Your task to perform on an android device: change the clock style Image 0: 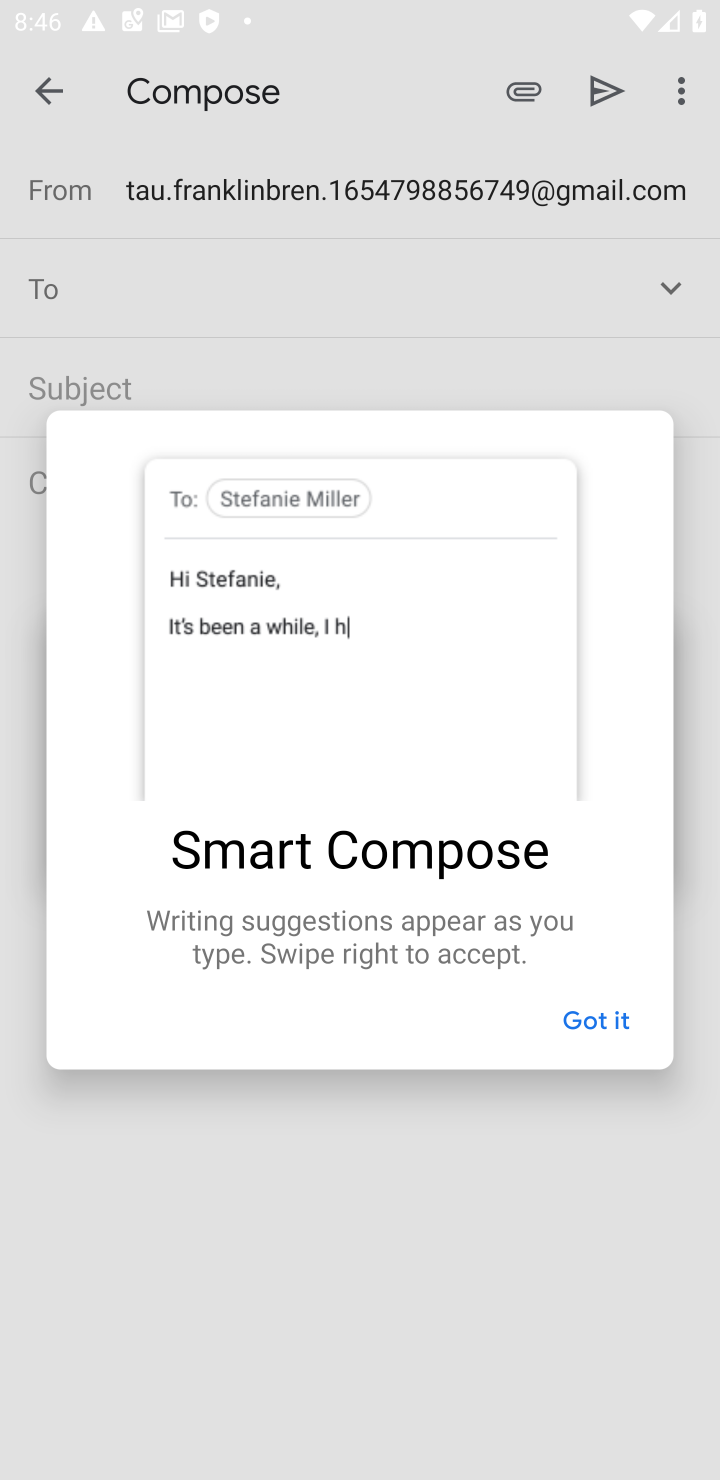
Step 0: press home button
Your task to perform on an android device: change the clock style Image 1: 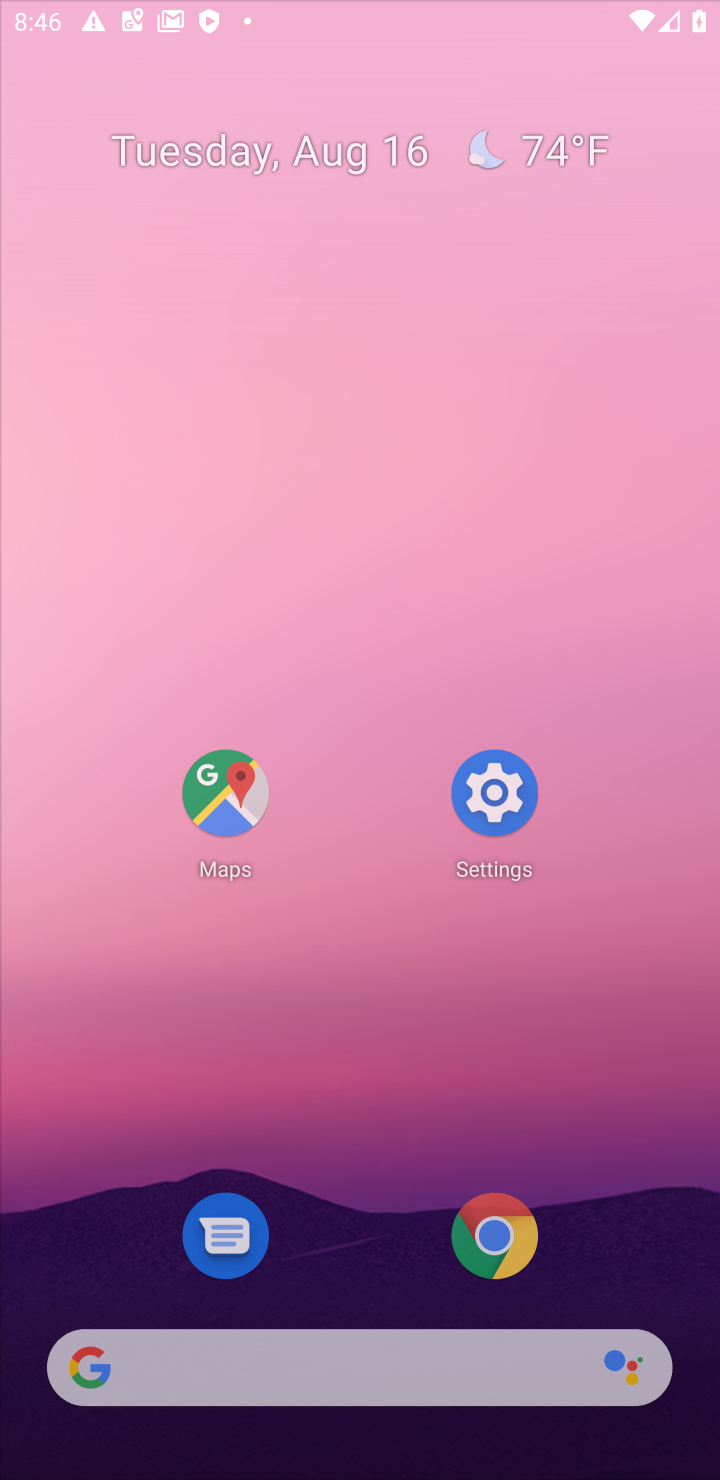
Step 1: press home button
Your task to perform on an android device: change the clock style Image 2: 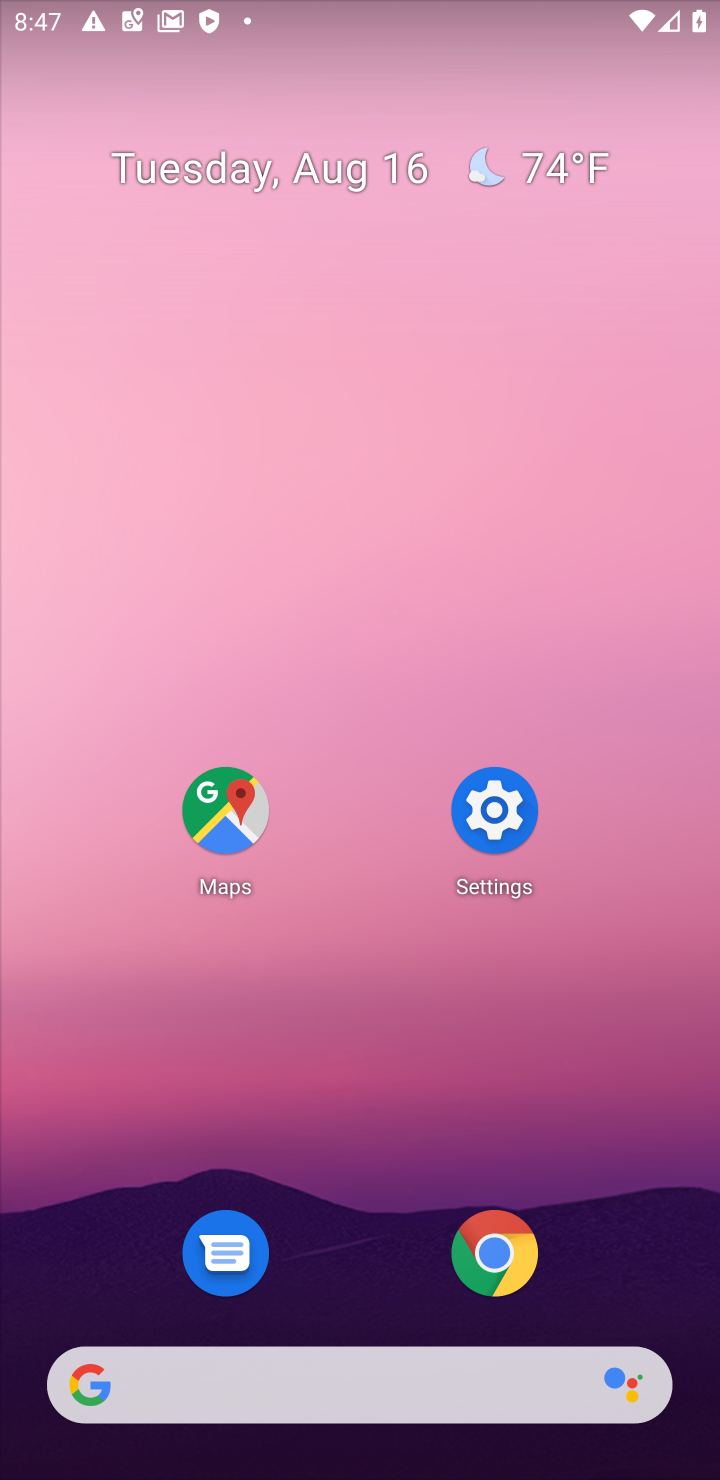
Step 2: drag from (353, 1166) to (477, 181)
Your task to perform on an android device: change the clock style Image 3: 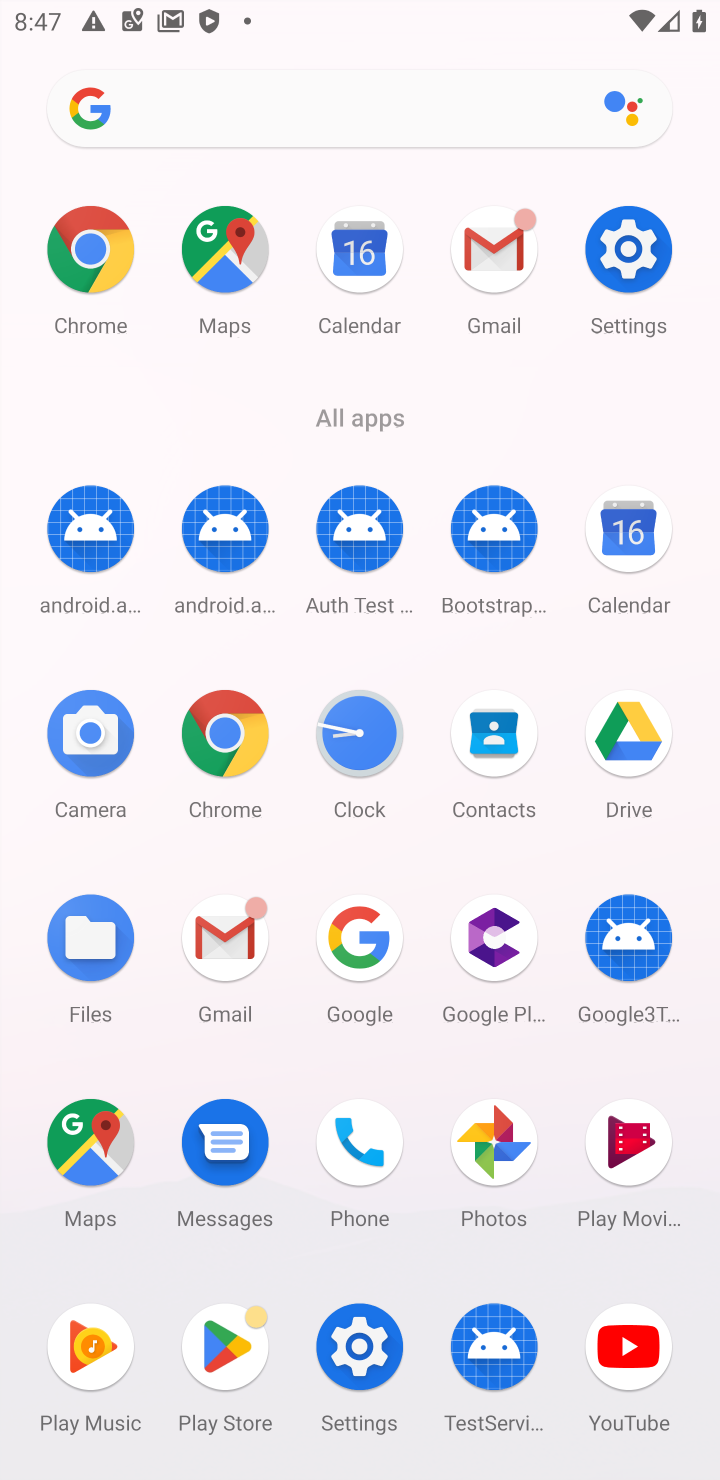
Step 3: click (352, 715)
Your task to perform on an android device: change the clock style Image 4: 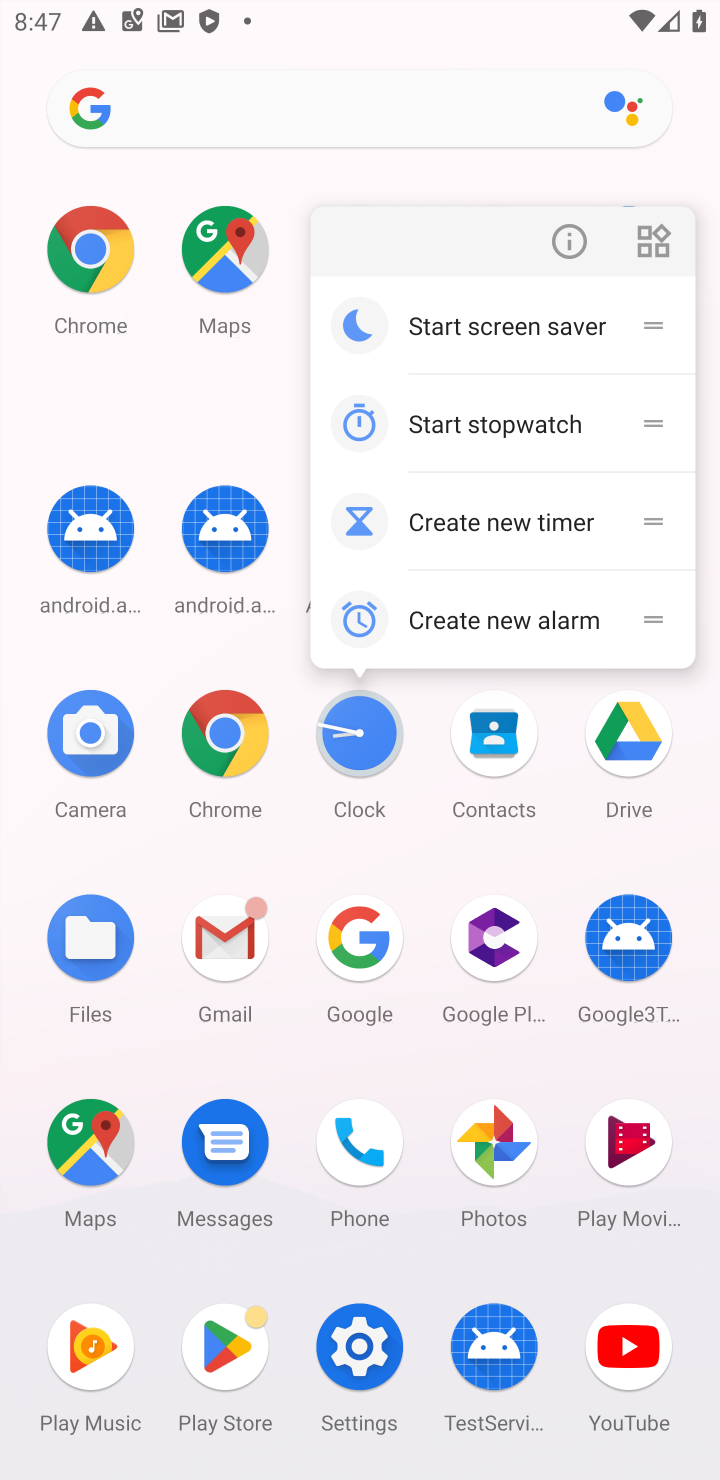
Step 4: click (352, 715)
Your task to perform on an android device: change the clock style Image 5: 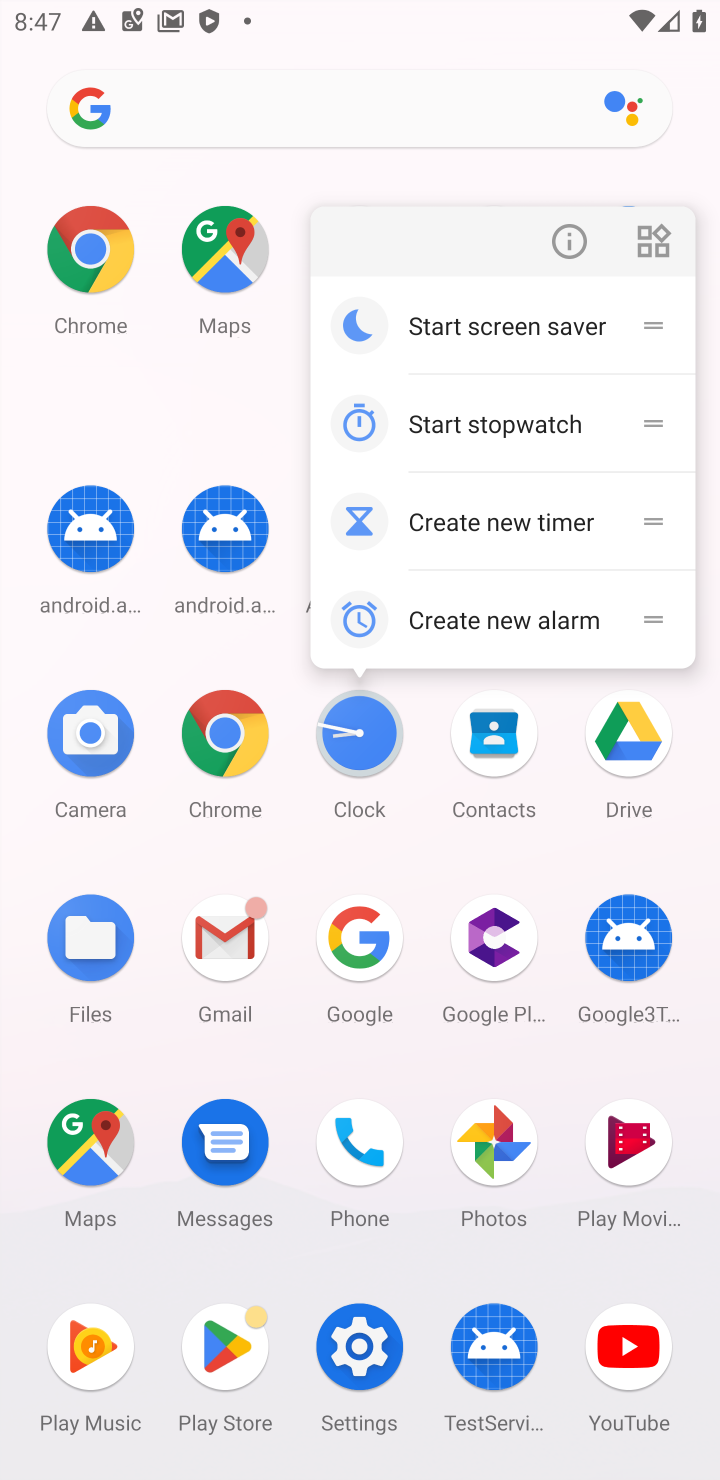
Step 5: click (374, 720)
Your task to perform on an android device: change the clock style Image 6: 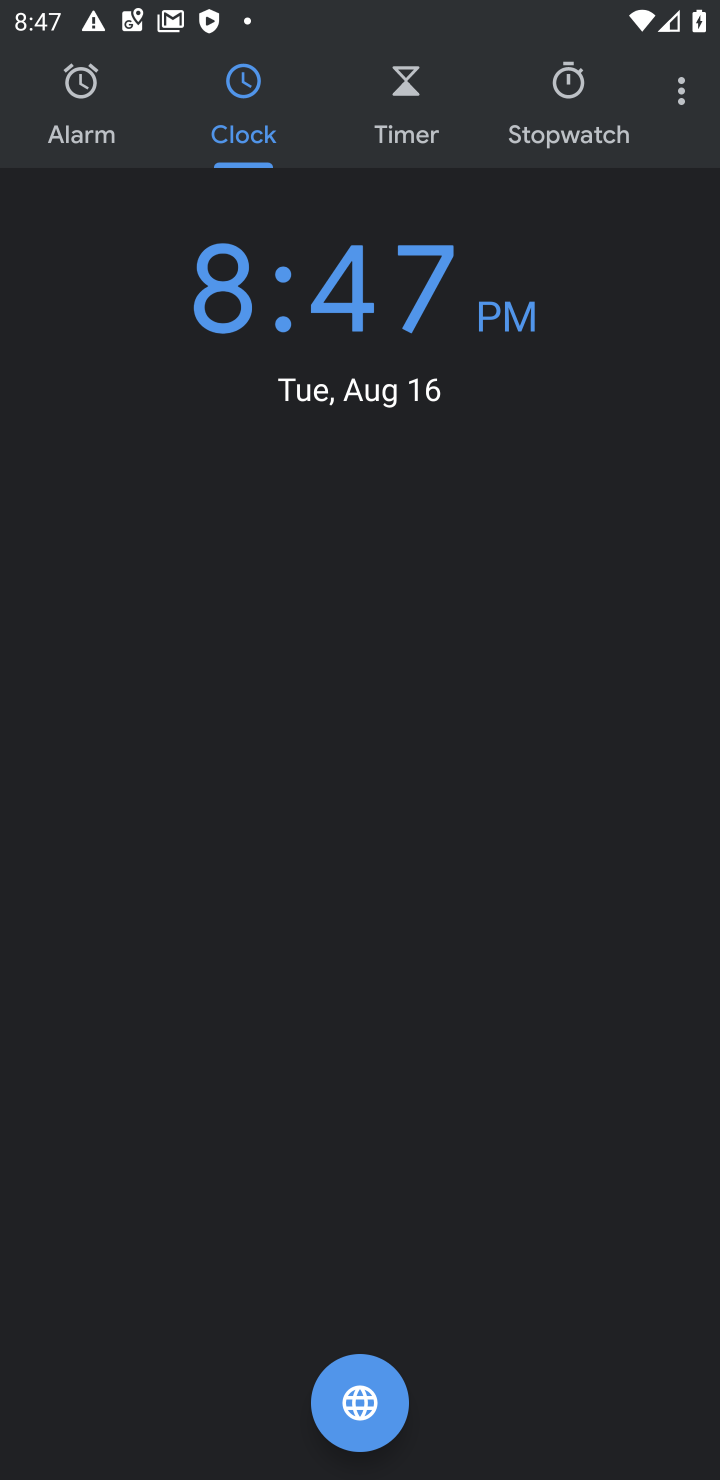
Step 6: click (681, 111)
Your task to perform on an android device: change the clock style Image 7: 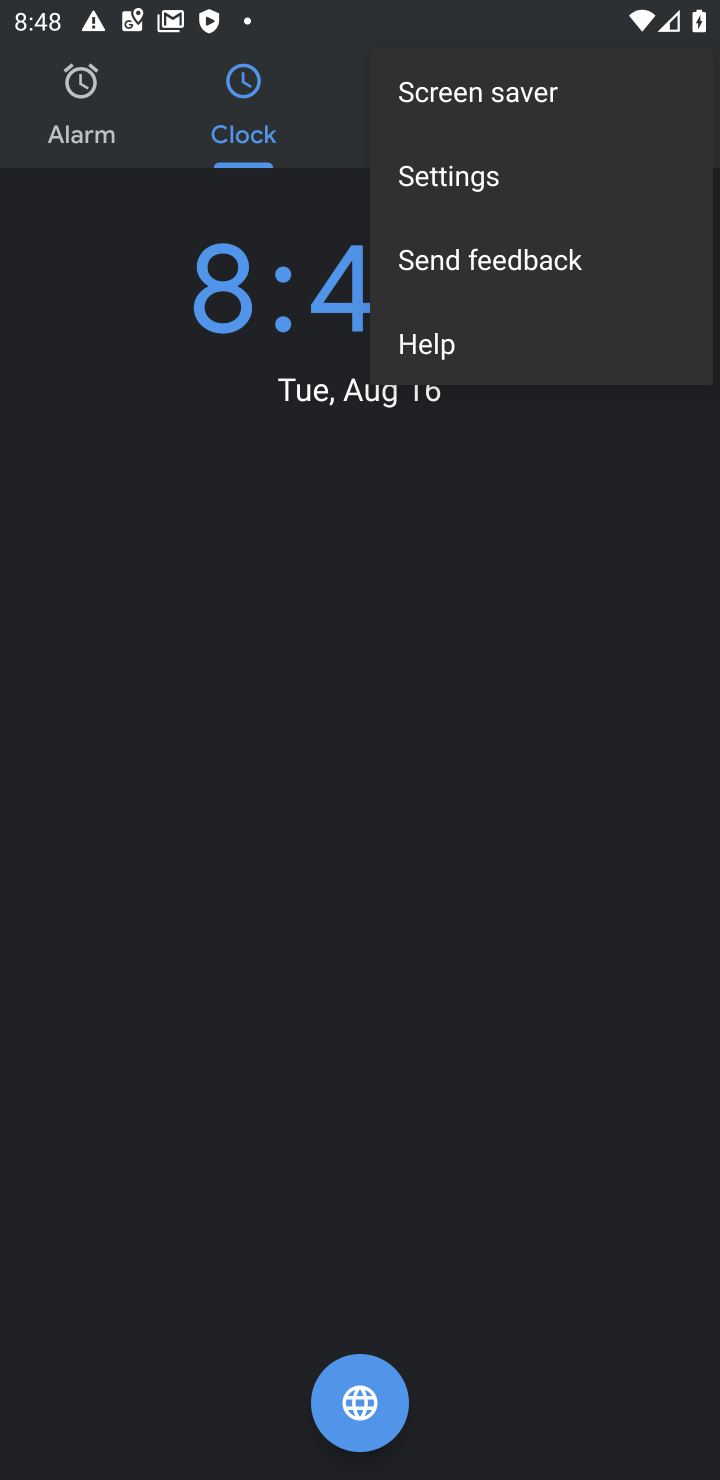
Step 7: click (470, 175)
Your task to perform on an android device: change the clock style Image 8: 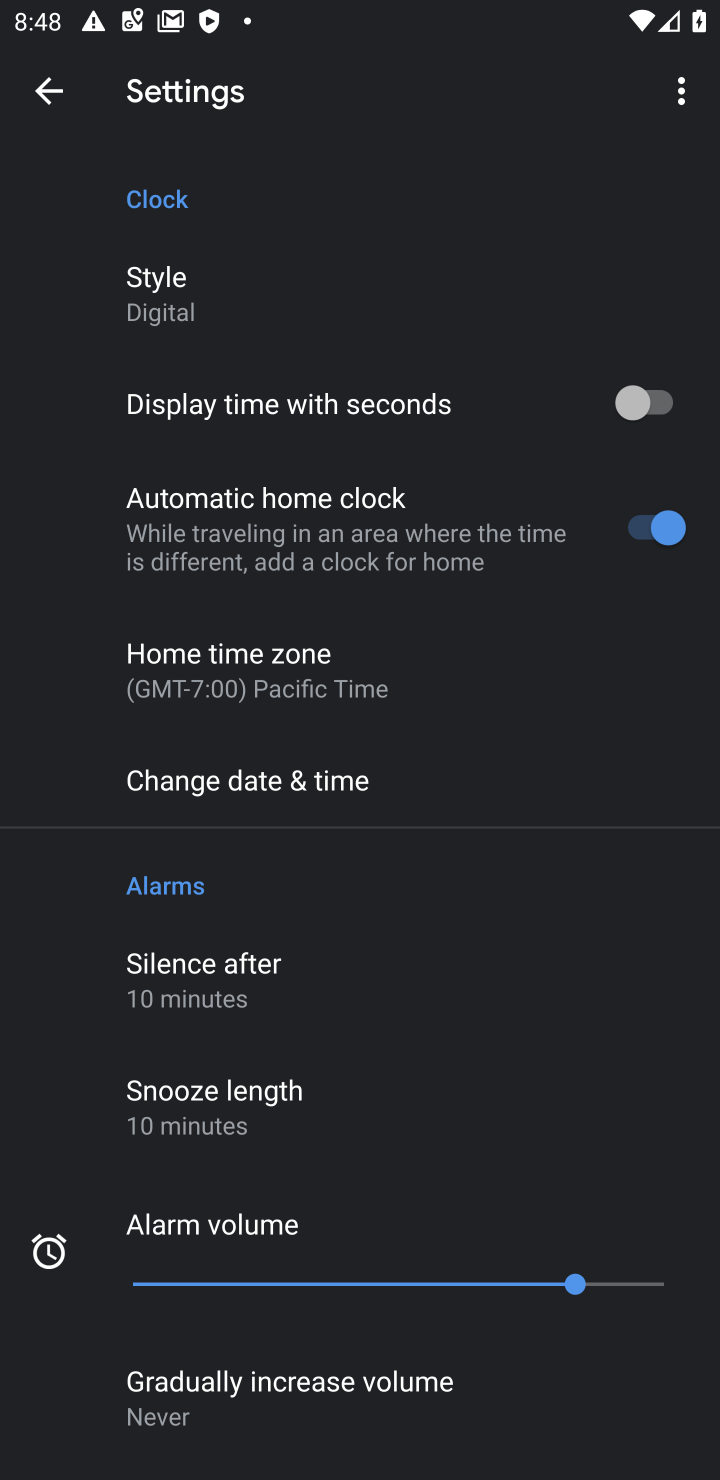
Step 8: click (162, 279)
Your task to perform on an android device: change the clock style Image 9: 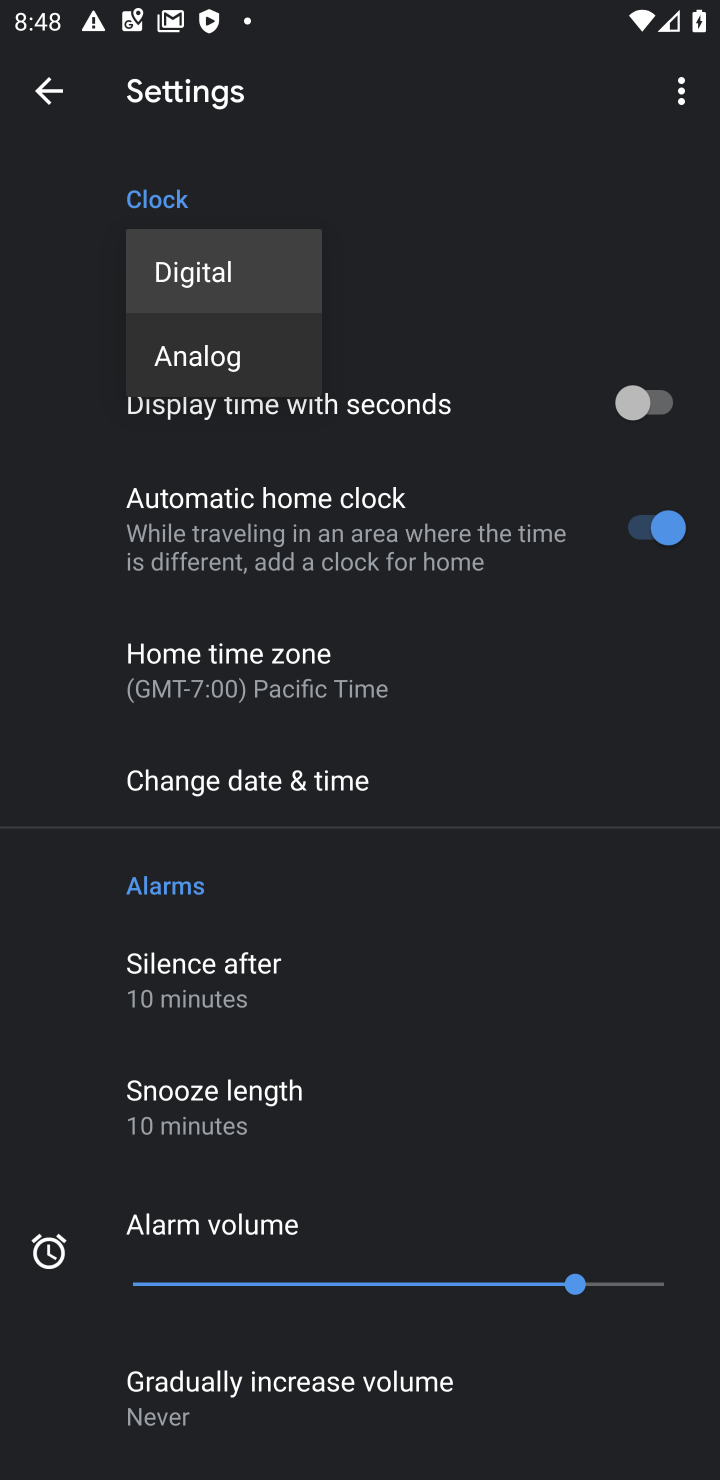
Step 9: click (211, 366)
Your task to perform on an android device: change the clock style Image 10: 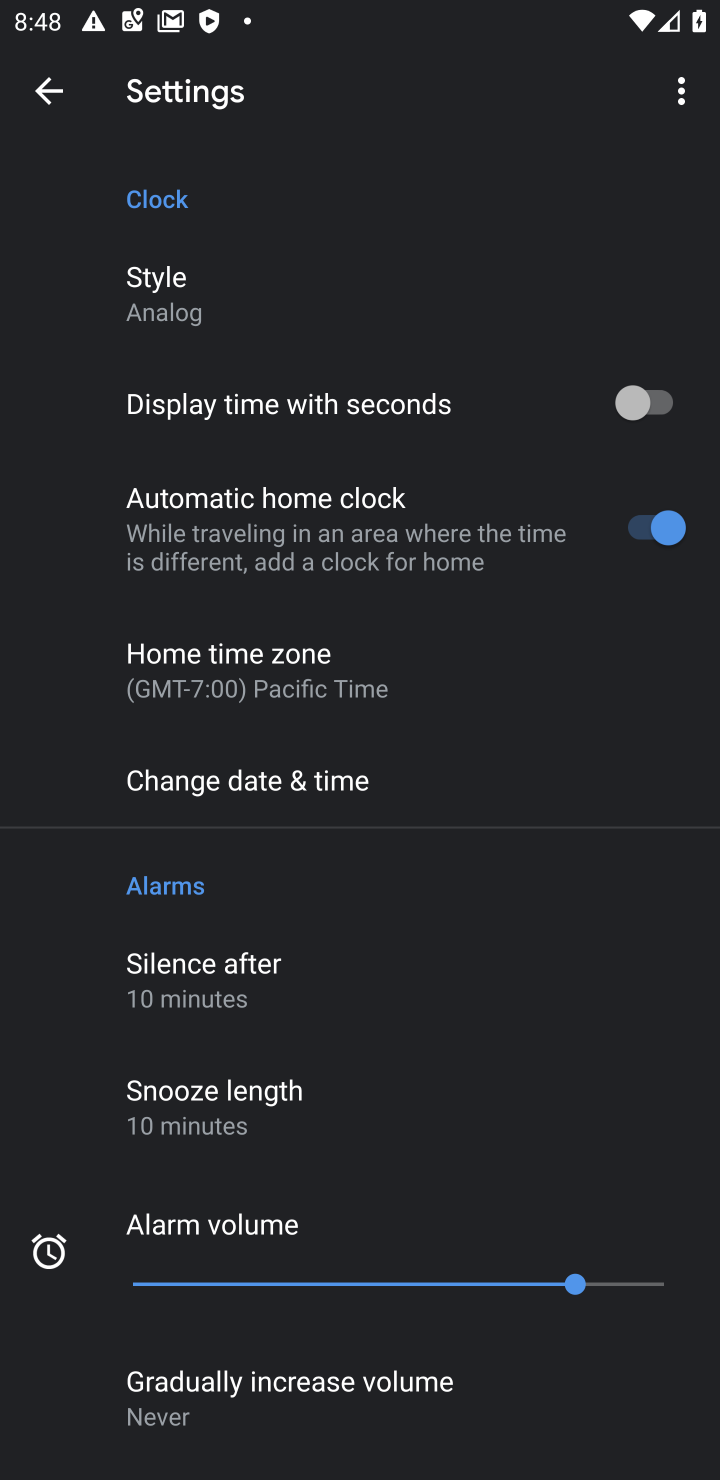
Step 10: task complete